Your task to perform on an android device: turn pop-ups on in chrome Image 0: 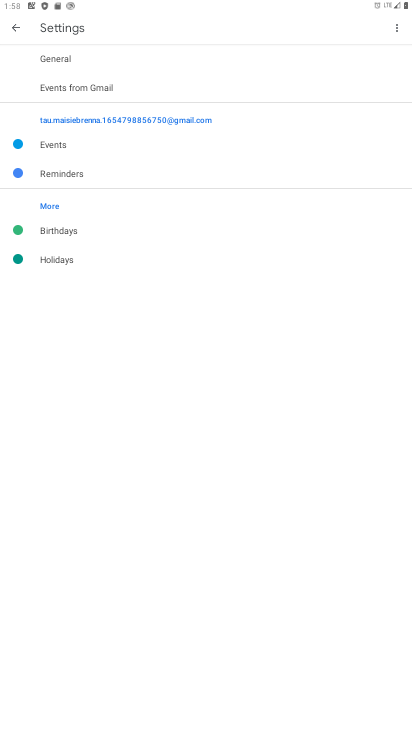
Step 0: press home button
Your task to perform on an android device: turn pop-ups on in chrome Image 1: 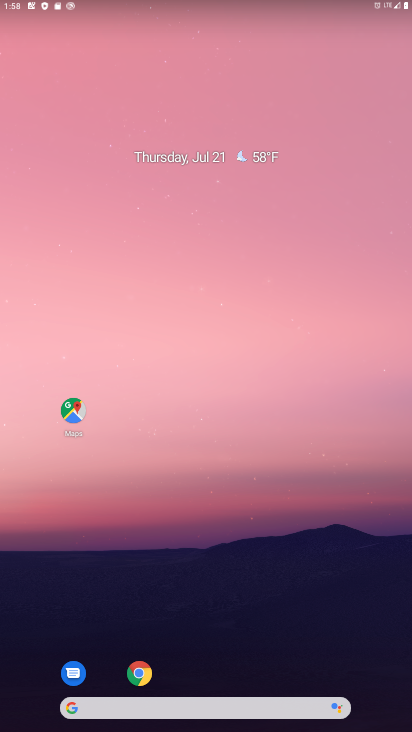
Step 1: drag from (221, 701) to (206, 604)
Your task to perform on an android device: turn pop-ups on in chrome Image 2: 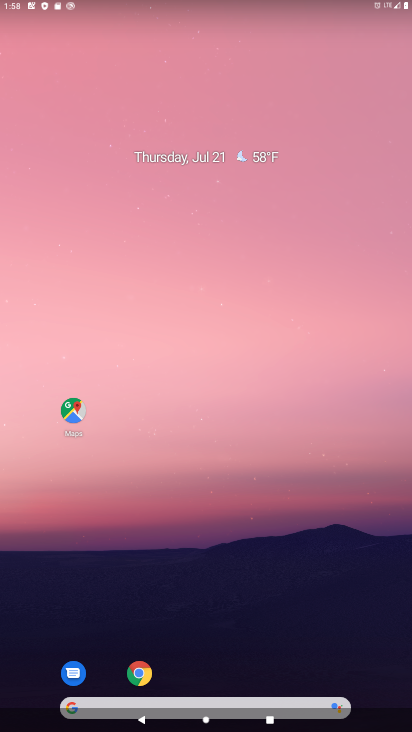
Step 2: drag from (212, 634) to (141, 3)
Your task to perform on an android device: turn pop-ups on in chrome Image 3: 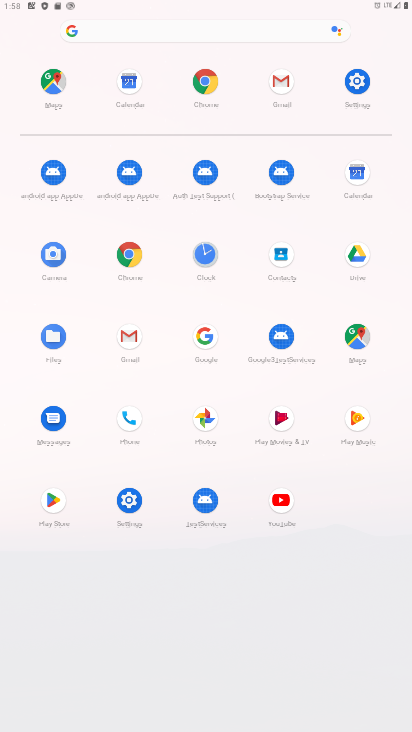
Step 3: click (131, 242)
Your task to perform on an android device: turn pop-ups on in chrome Image 4: 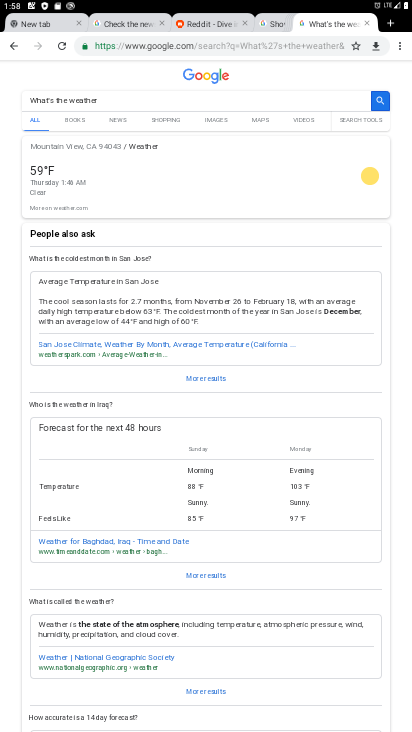
Step 4: click (402, 42)
Your task to perform on an android device: turn pop-ups on in chrome Image 5: 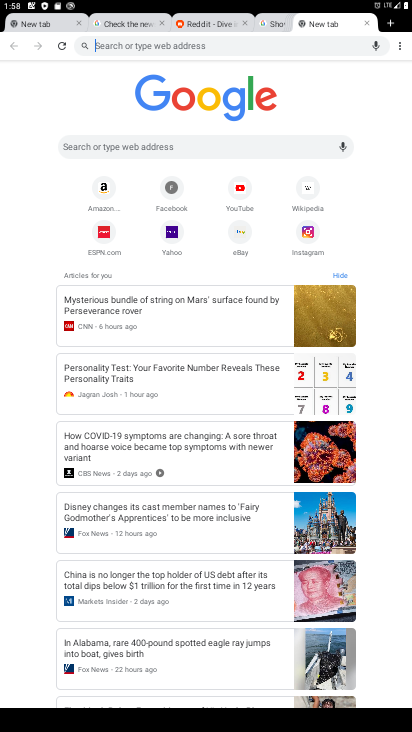
Step 5: click (399, 42)
Your task to perform on an android device: turn pop-ups on in chrome Image 6: 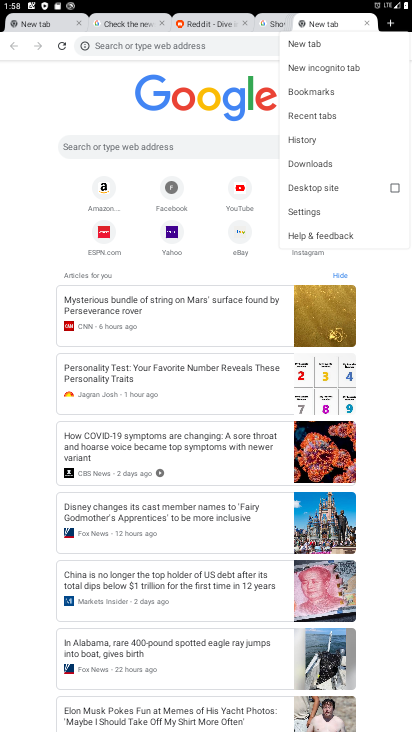
Step 6: click (310, 204)
Your task to perform on an android device: turn pop-ups on in chrome Image 7: 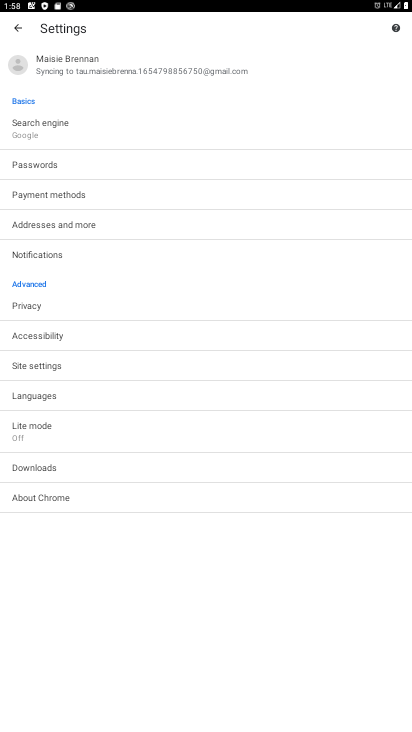
Step 7: click (87, 356)
Your task to perform on an android device: turn pop-ups on in chrome Image 8: 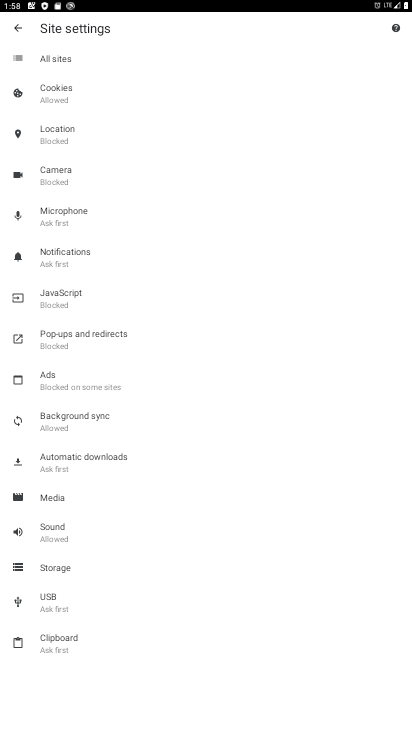
Step 8: click (94, 352)
Your task to perform on an android device: turn pop-ups on in chrome Image 9: 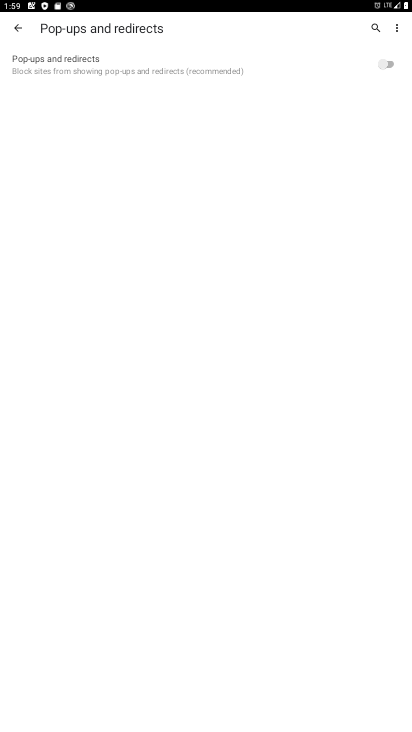
Step 9: click (397, 54)
Your task to perform on an android device: turn pop-ups on in chrome Image 10: 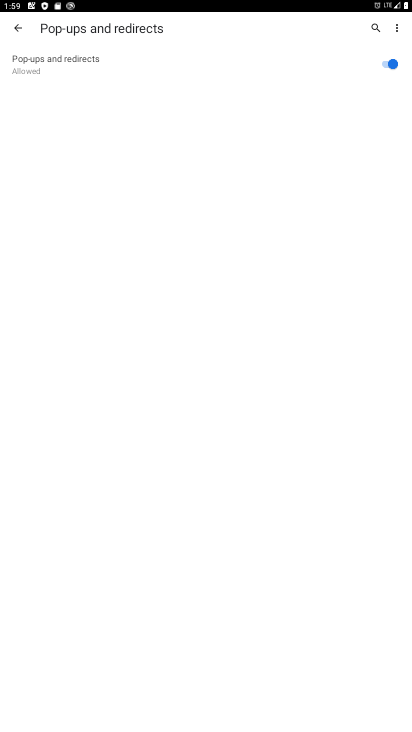
Step 10: task complete